Your task to perform on an android device: Open privacy settings Image 0: 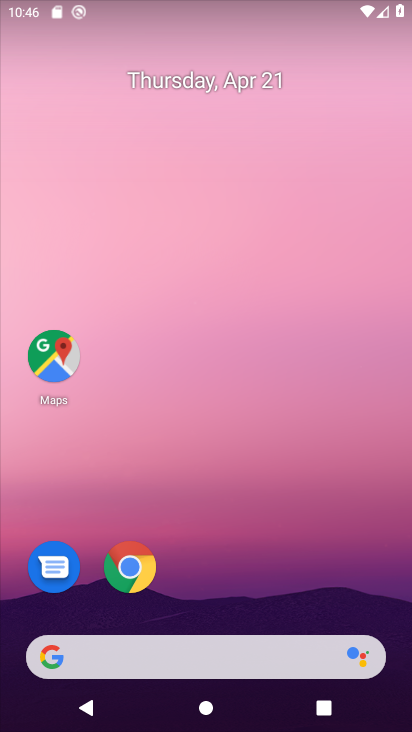
Step 0: drag from (215, 594) to (275, 23)
Your task to perform on an android device: Open privacy settings Image 1: 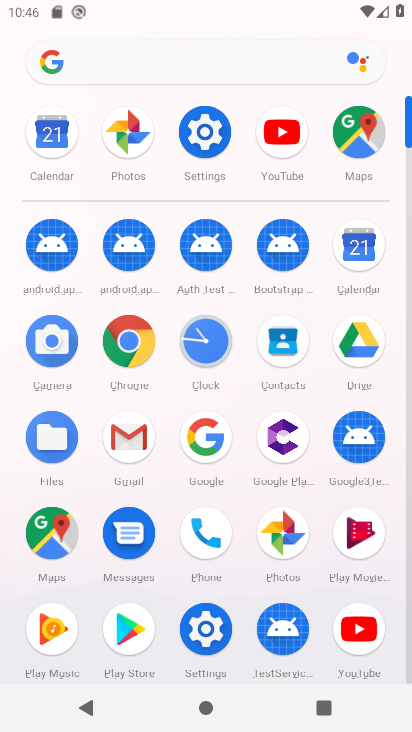
Step 1: click (208, 134)
Your task to perform on an android device: Open privacy settings Image 2: 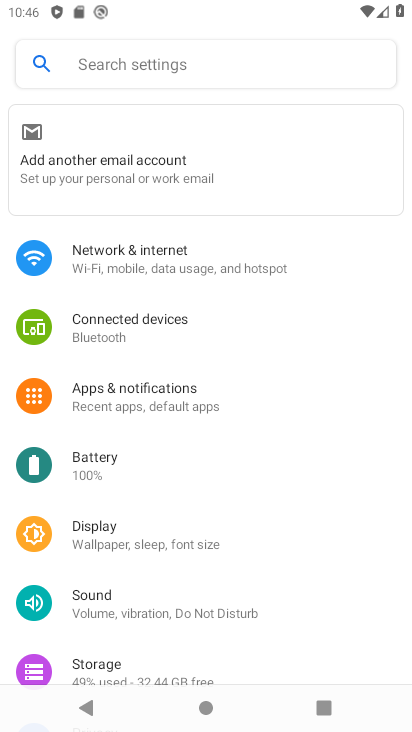
Step 2: drag from (132, 620) to (251, 142)
Your task to perform on an android device: Open privacy settings Image 3: 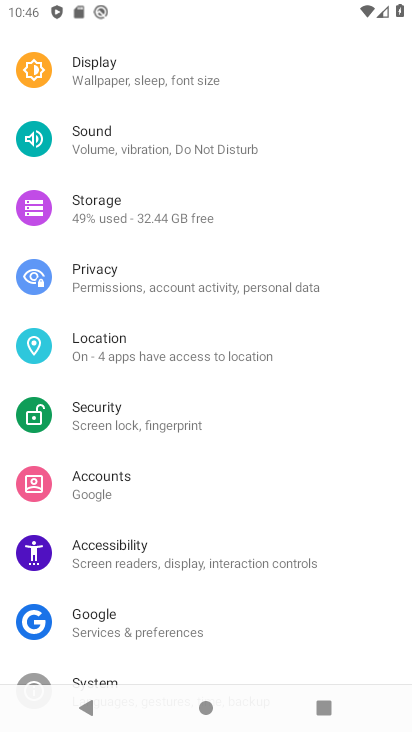
Step 3: click (142, 284)
Your task to perform on an android device: Open privacy settings Image 4: 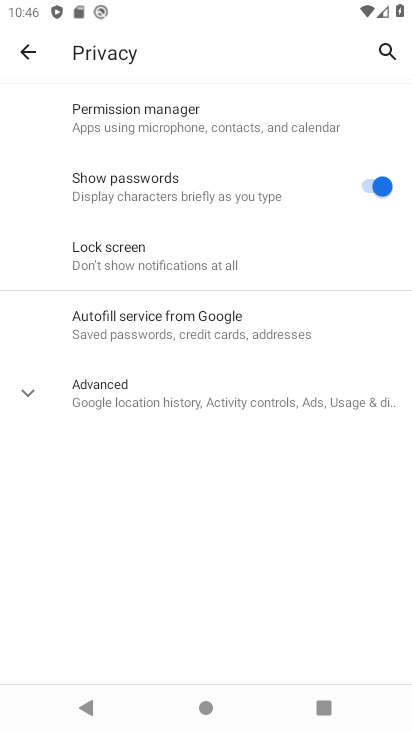
Step 4: task complete